Your task to perform on an android device: add a contact in the contacts app Image 0: 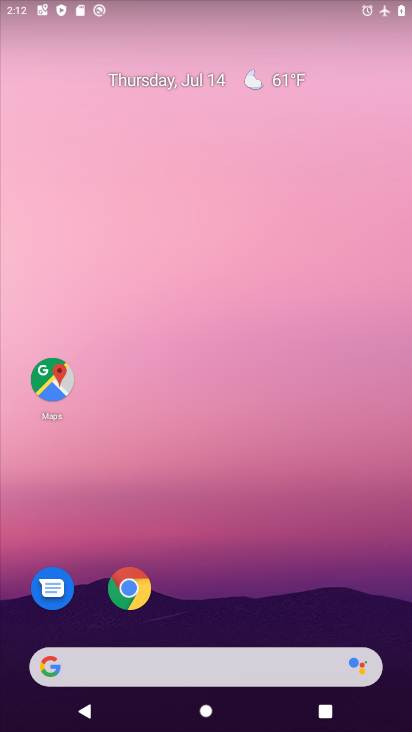
Step 0: drag from (191, 641) to (287, 293)
Your task to perform on an android device: add a contact in the contacts app Image 1: 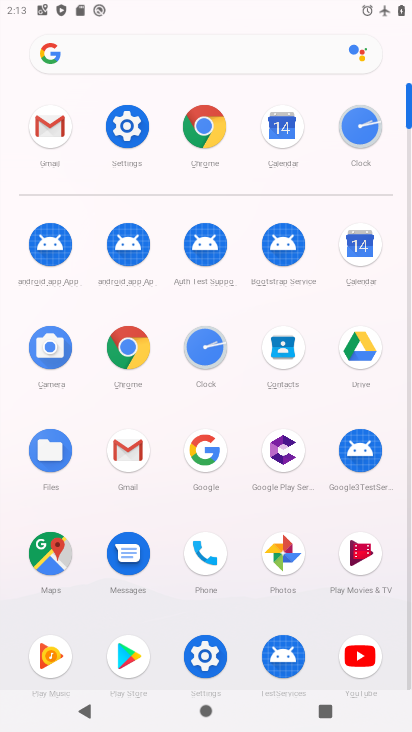
Step 1: click (204, 551)
Your task to perform on an android device: add a contact in the contacts app Image 2: 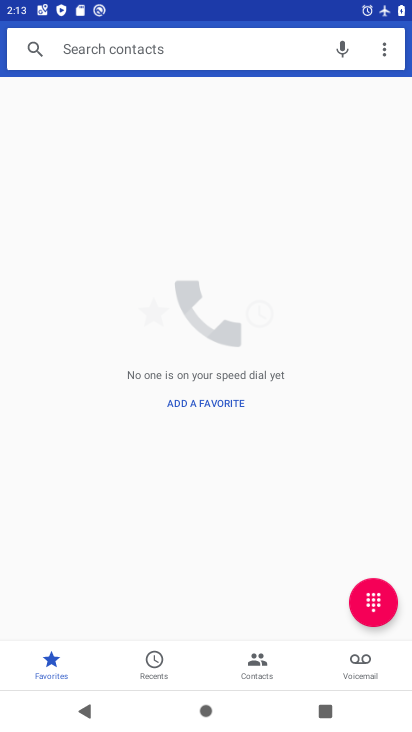
Step 2: click (210, 396)
Your task to perform on an android device: add a contact in the contacts app Image 3: 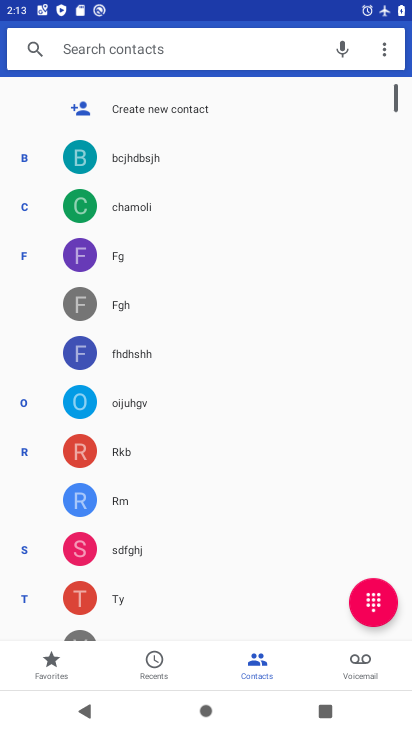
Step 3: click (178, 104)
Your task to perform on an android device: add a contact in the contacts app Image 4: 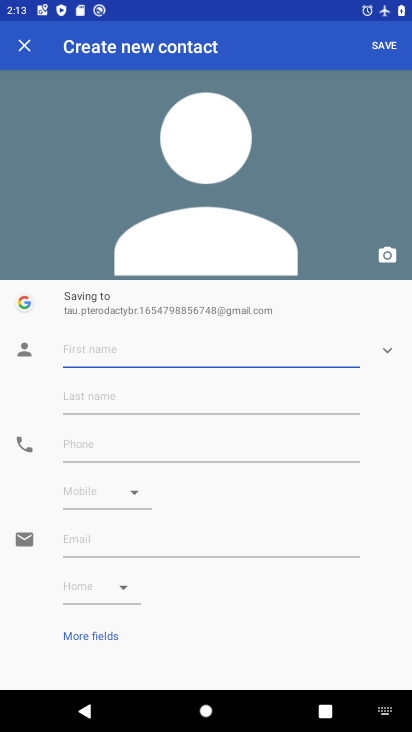
Step 4: click (187, 360)
Your task to perform on an android device: add a contact in the contacts app Image 5: 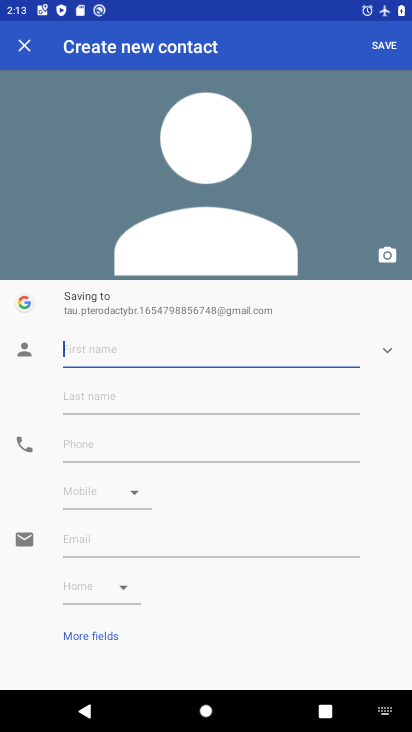
Step 5: type "kakakaakaakakkaka "
Your task to perform on an android device: add a contact in the contacts app Image 6: 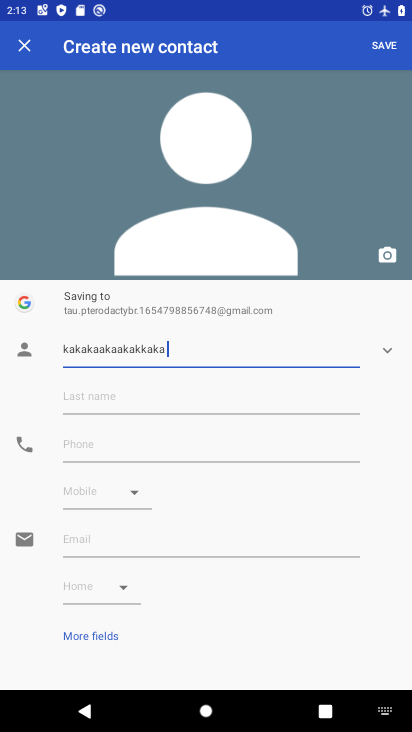
Step 6: click (155, 457)
Your task to perform on an android device: add a contact in the contacts app Image 7: 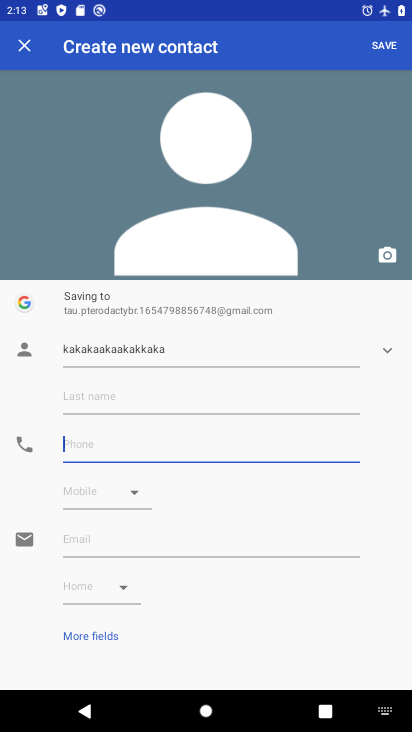
Step 7: type "0101001010010011001 "
Your task to perform on an android device: add a contact in the contacts app Image 8: 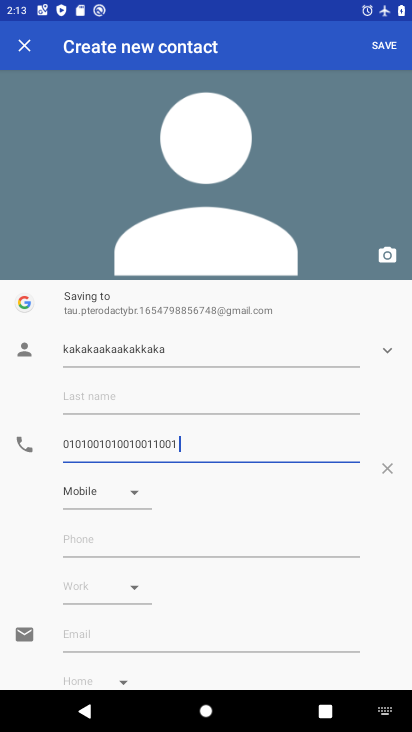
Step 8: click (382, 41)
Your task to perform on an android device: add a contact in the contacts app Image 9: 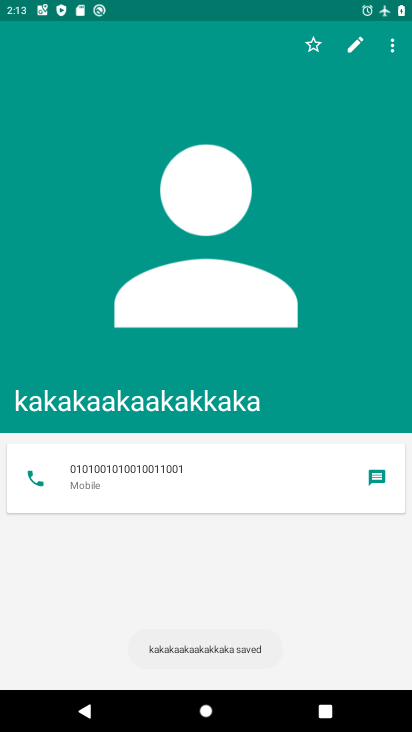
Step 9: task complete